Your task to perform on an android device: change the clock style Image 0: 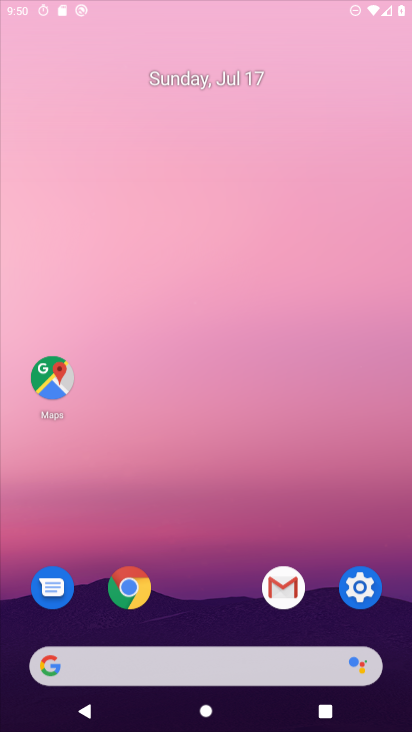
Step 0: press home button
Your task to perform on an android device: change the clock style Image 1: 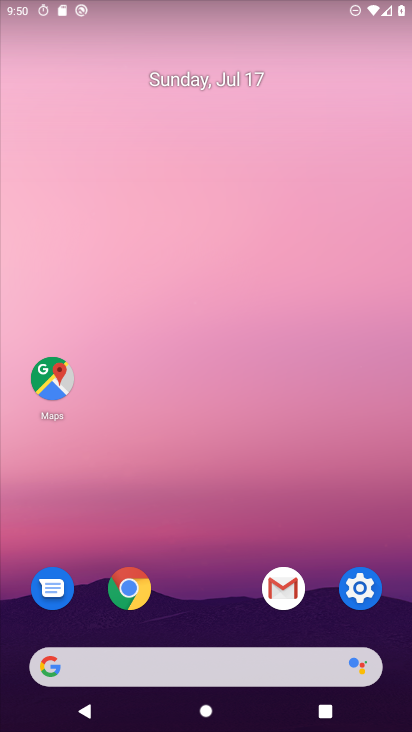
Step 1: click (367, 565)
Your task to perform on an android device: change the clock style Image 2: 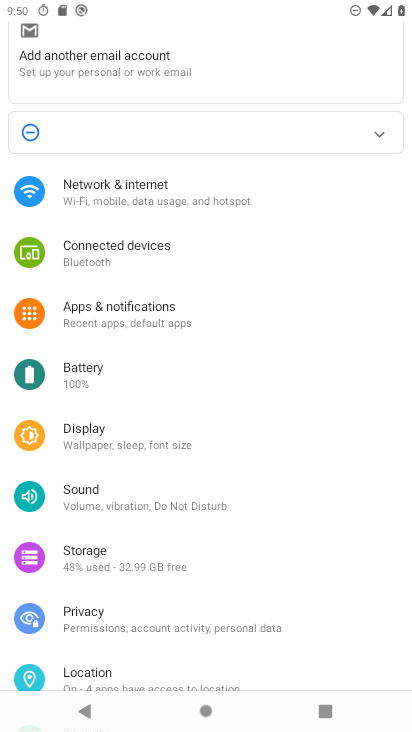
Step 2: press home button
Your task to perform on an android device: change the clock style Image 3: 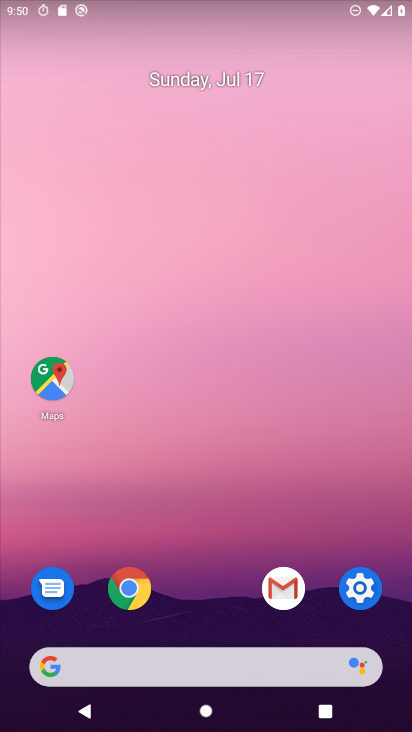
Step 3: drag from (266, 648) to (204, 96)
Your task to perform on an android device: change the clock style Image 4: 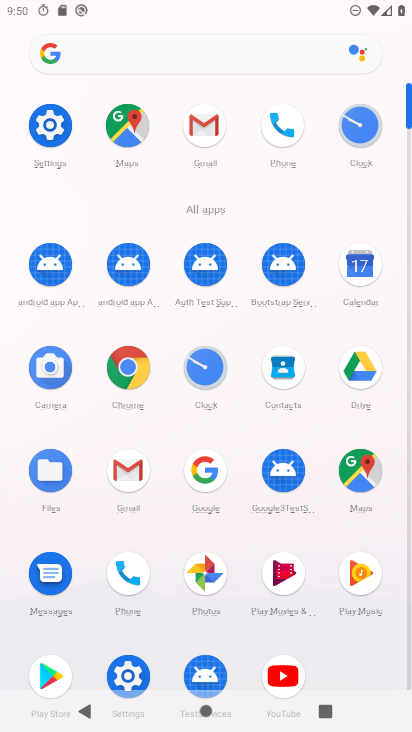
Step 4: click (208, 359)
Your task to perform on an android device: change the clock style Image 5: 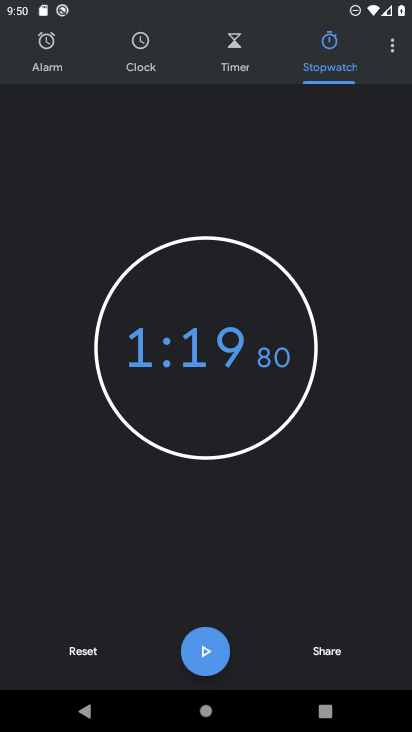
Step 5: click (36, 37)
Your task to perform on an android device: change the clock style Image 6: 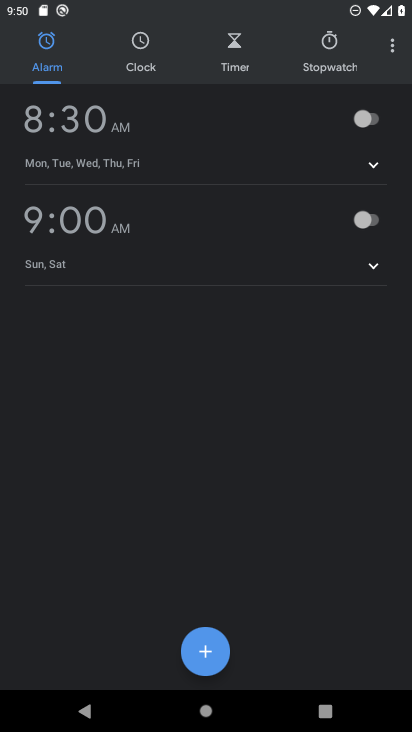
Step 6: click (394, 43)
Your task to perform on an android device: change the clock style Image 7: 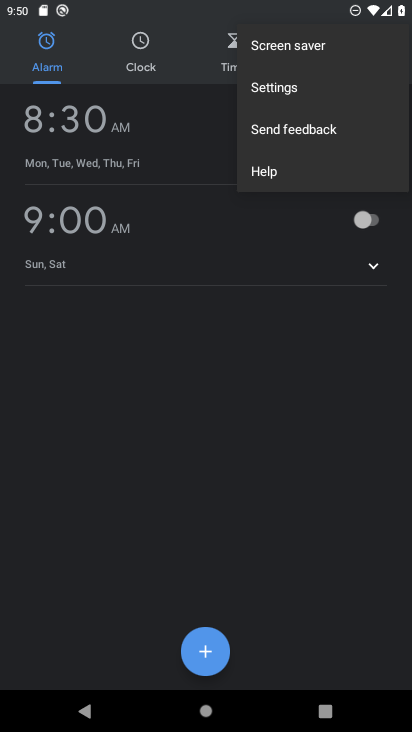
Step 7: click (299, 95)
Your task to perform on an android device: change the clock style Image 8: 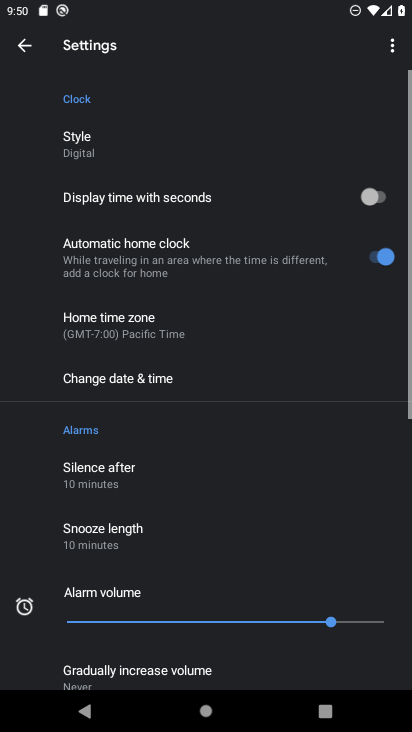
Step 8: click (94, 141)
Your task to perform on an android device: change the clock style Image 9: 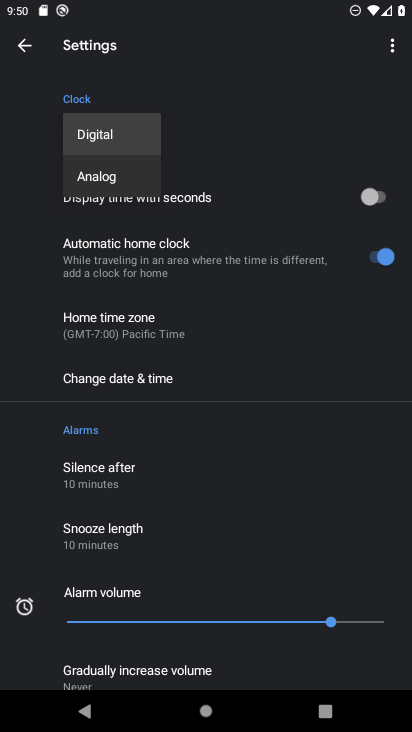
Step 9: click (117, 179)
Your task to perform on an android device: change the clock style Image 10: 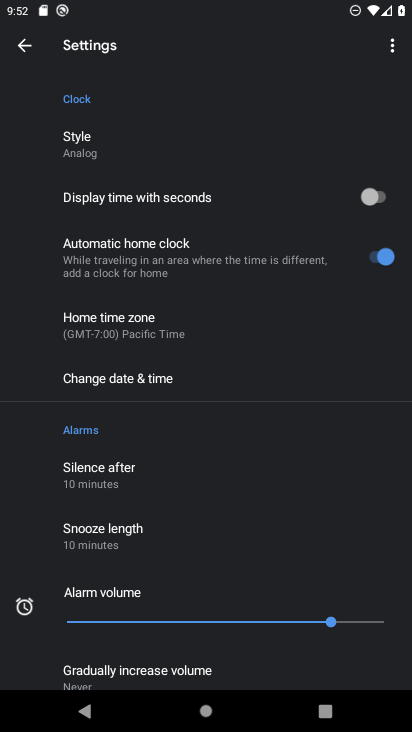
Step 10: task complete